Your task to perform on an android device: Open maps Image 0: 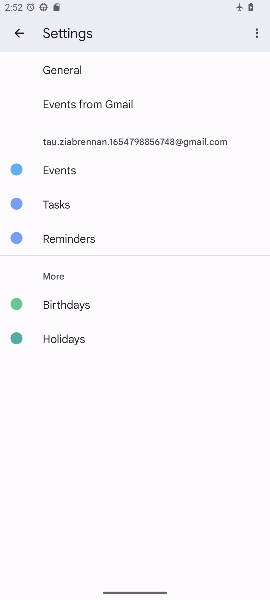
Step 0: press home button
Your task to perform on an android device: Open maps Image 1: 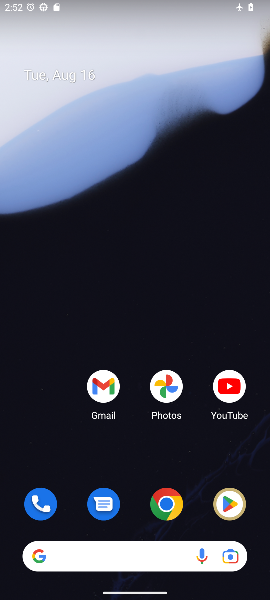
Step 1: drag from (140, 482) to (133, 64)
Your task to perform on an android device: Open maps Image 2: 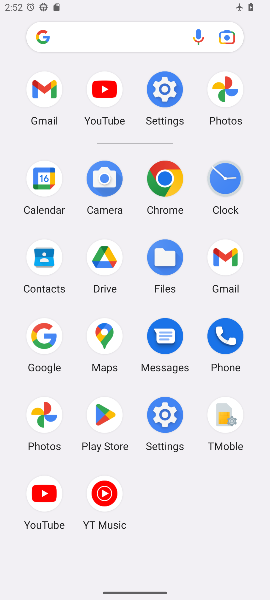
Step 2: click (104, 333)
Your task to perform on an android device: Open maps Image 3: 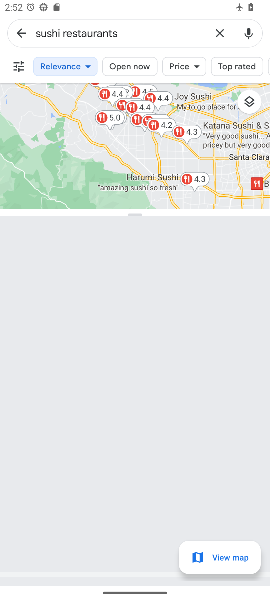
Step 3: click (20, 29)
Your task to perform on an android device: Open maps Image 4: 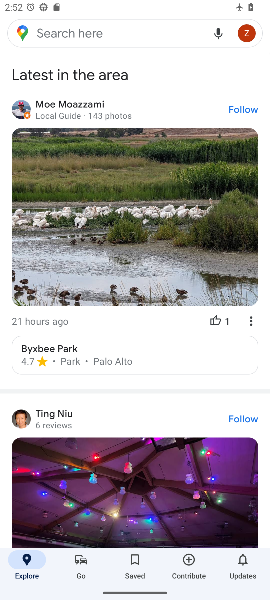
Step 4: task complete